Your task to perform on an android device: delete browsing data in the chrome app Image 0: 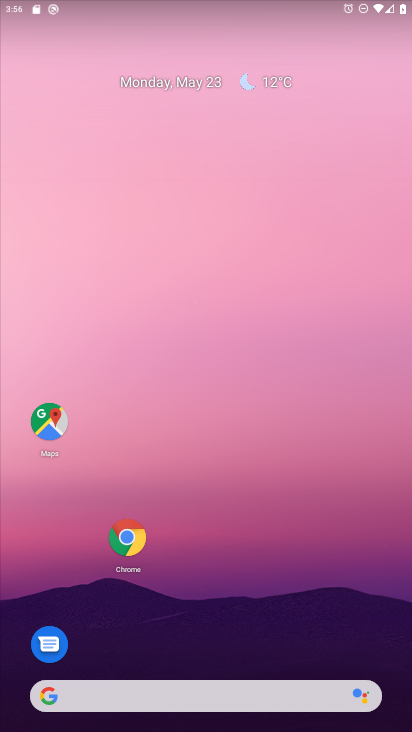
Step 0: click (130, 538)
Your task to perform on an android device: delete browsing data in the chrome app Image 1: 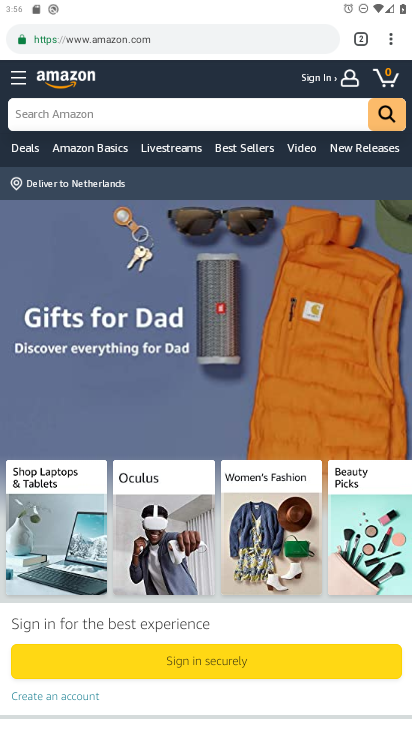
Step 1: drag from (399, 32) to (279, 218)
Your task to perform on an android device: delete browsing data in the chrome app Image 2: 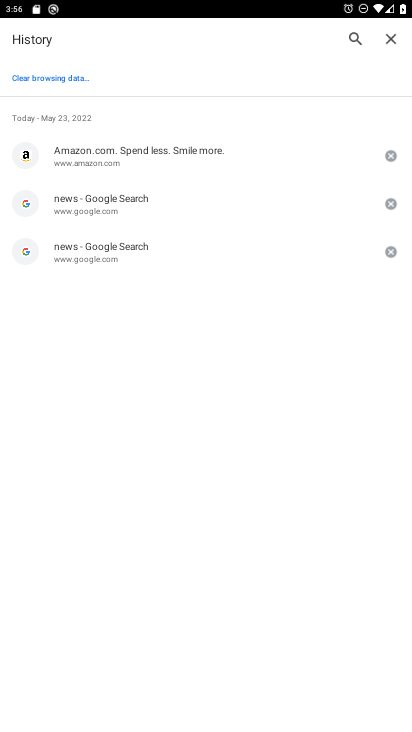
Step 2: click (52, 79)
Your task to perform on an android device: delete browsing data in the chrome app Image 3: 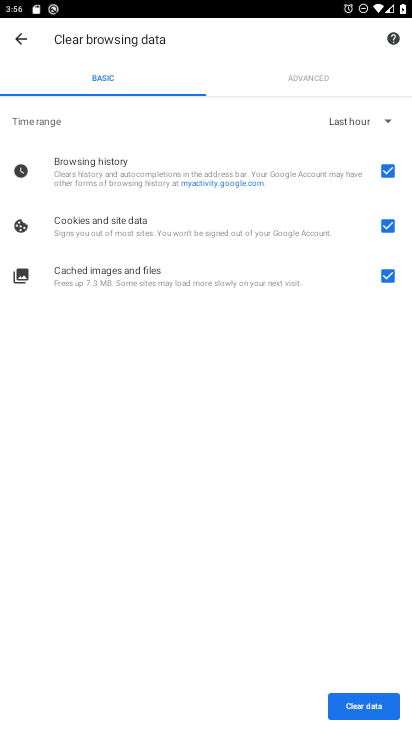
Step 3: click (365, 129)
Your task to perform on an android device: delete browsing data in the chrome app Image 4: 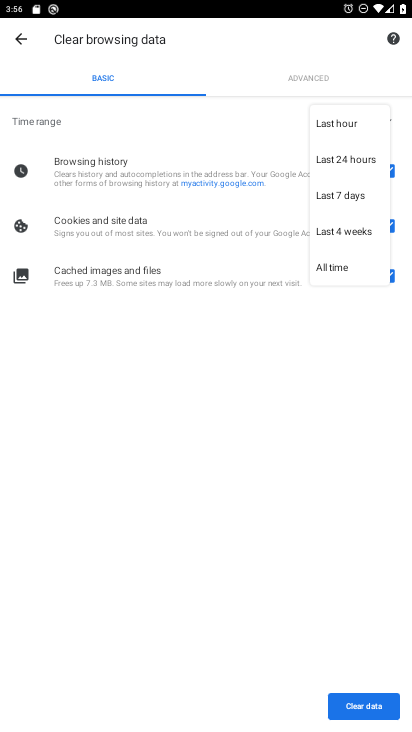
Step 4: click (340, 263)
Your task to perform on an android device: delete browsing data in the chrome app Image 5: 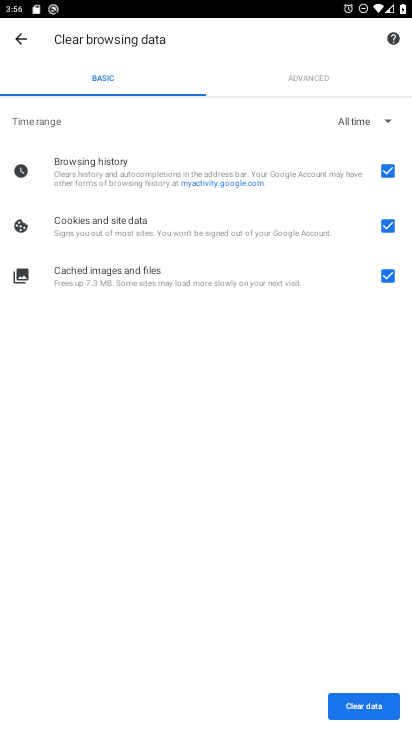
Step 5: click (364, 699)
Your task to perform on an android device: delete browsing data in the chrome app Image 6: 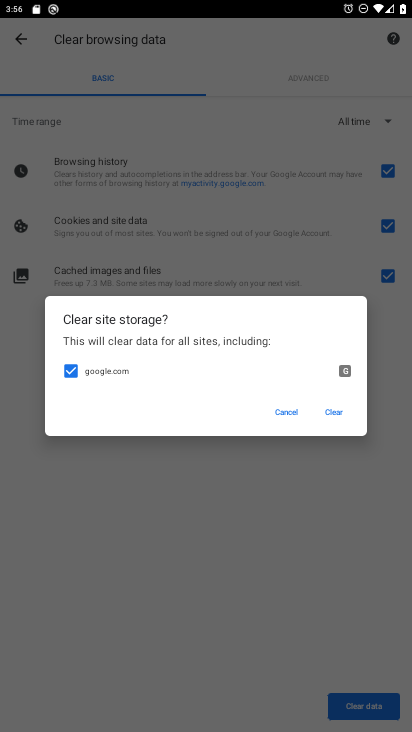
Step 6: click (336, 412)
Your task to perform on an android device: delete browsing data in the chrome app Image 7: 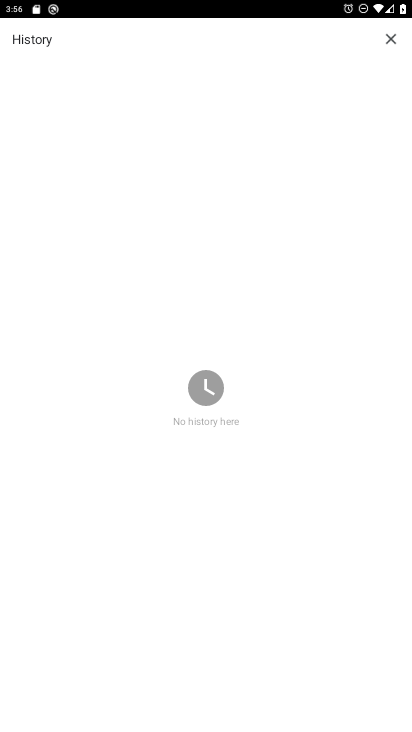
Step 7: task complete